Your task to perform on an android device: make emails show in primary in the gmail app Image 0: 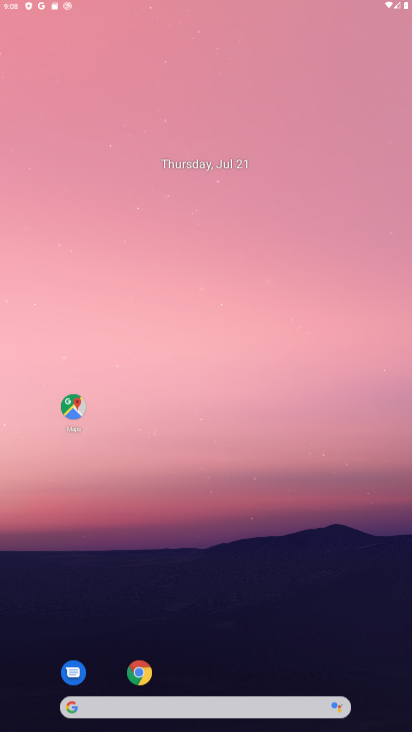
Step 0: press home button
Your task to perform on an android device: make emails show in primary in the gmail app Image 1: 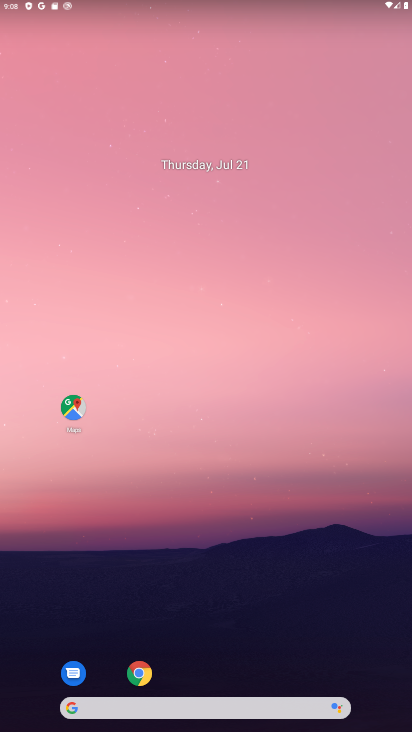
Step 1: drag from (205, 676) to (221, 10)
Your task to perform on an android device: make emails show in primary in the gmail app Image 2: 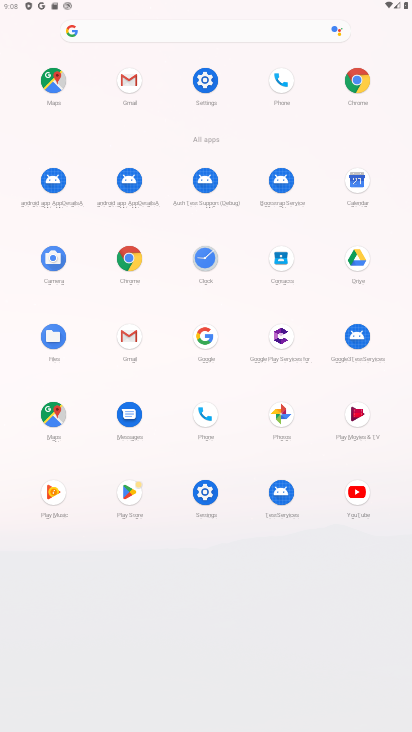
Step 2: click (126, 328)
Your task to perform on an android device: make emails show in primary in the gmail app Image 3: 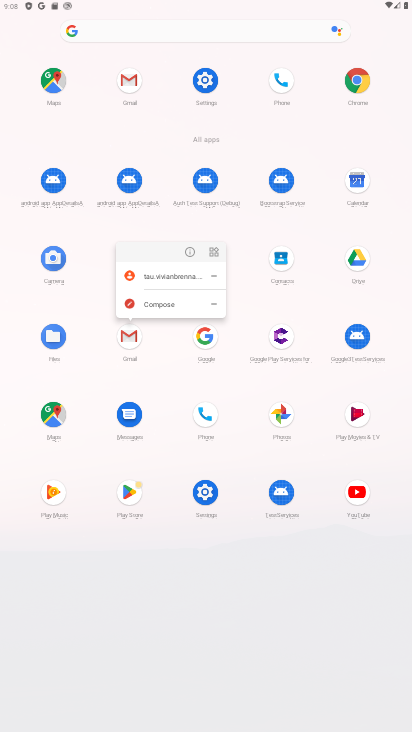
Step 3: click (127, 328)
Your task to perform on an android device: make emails show in primary in the gmail app Image 4: 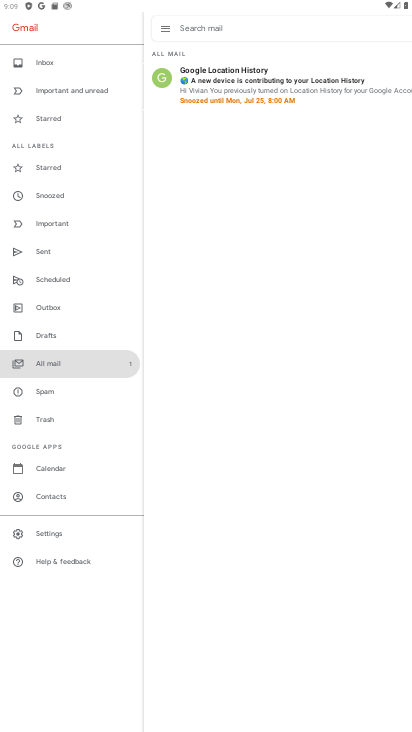
Step 4: click (47, 526)
Your task to perform on an android device: make emails show in primary in the gmail app Image 5: 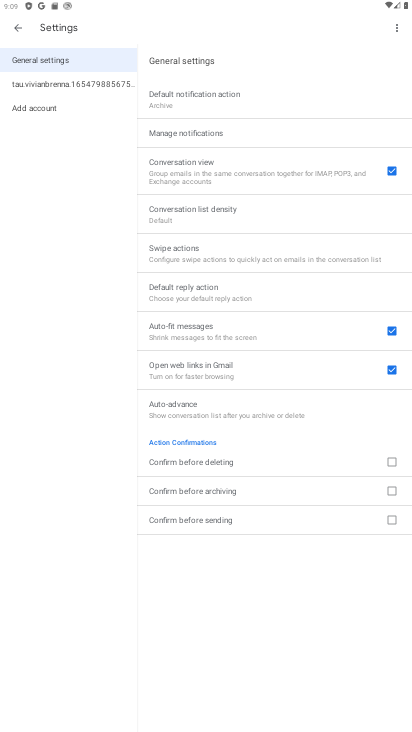
Step 5: click (81, 86)
Your task to perform on an android device: make emails show in primary in the gmail app Image 6: 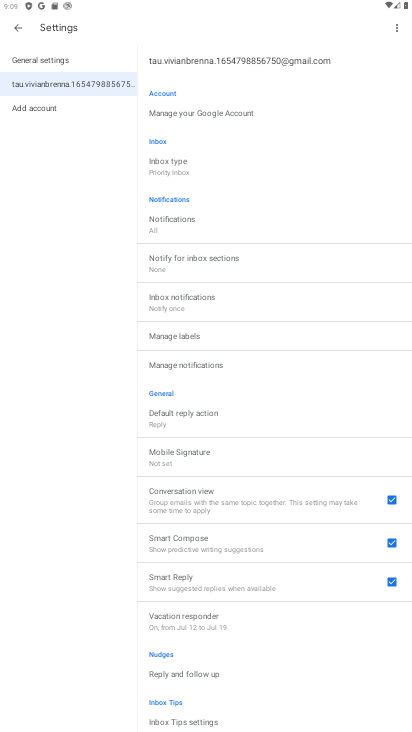
Step 6: click (181, 164)
Your task to perform on an android device: make emails show in primary in the gmail app Image 7: 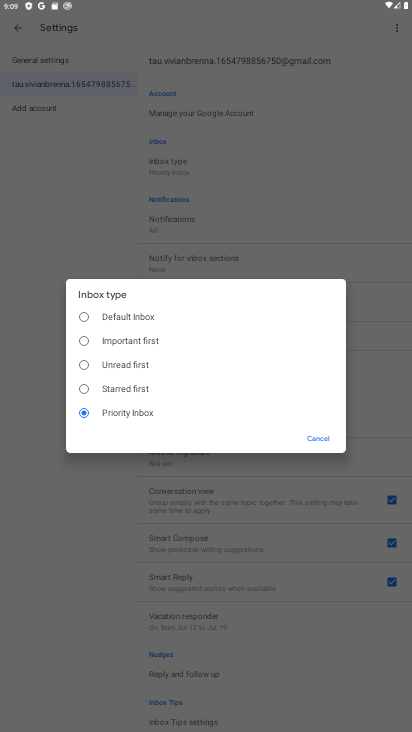
Step 7: click (84, 309)
Your task to perform on an android device: make emails show in primary in the gmail app Image 8: 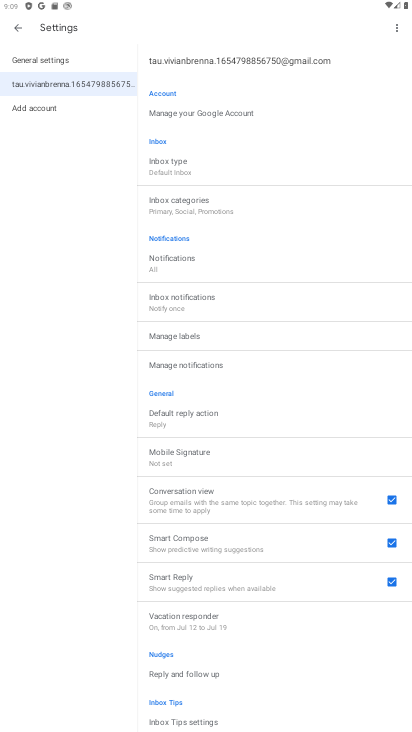
Step 8: task complete